Your task to perform on an android device: open device folders in google photos Image 0: 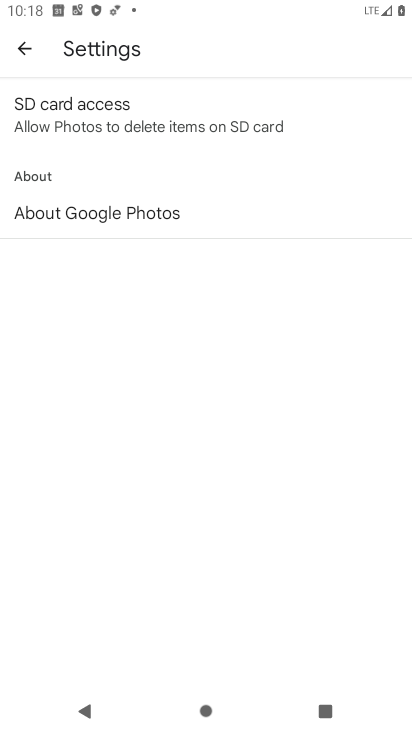
Step 0: press home button
Your task to perform on an android device: open device folders in google photos Image 1: 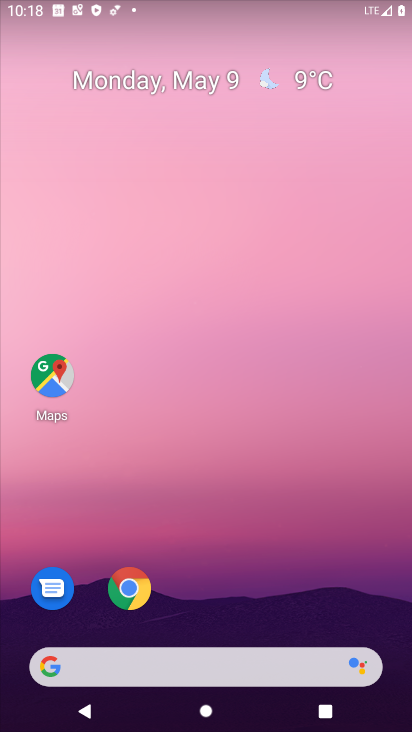
Step 1: drag from (130, 671) to (336, 160)
Your task to perform on an android device: open device folders in google photos Image 2: 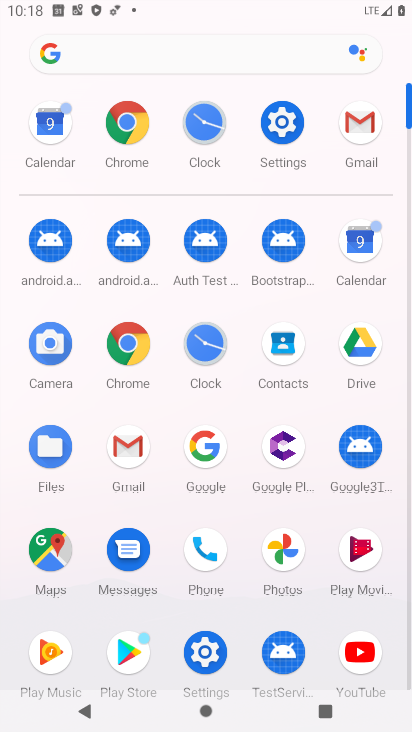
Step 2: click (283, 558)
Your task to perform on an android device: open device folders in google photos Image 3: 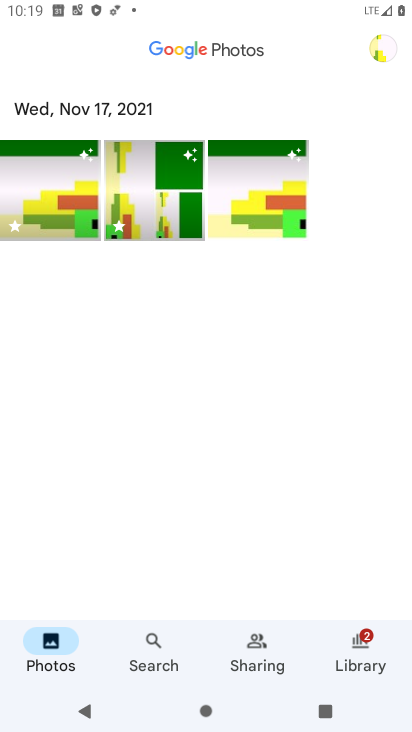
Step 3: click (381, 53)
Your task to perform on an android device: open device folders in google photos Image 4: 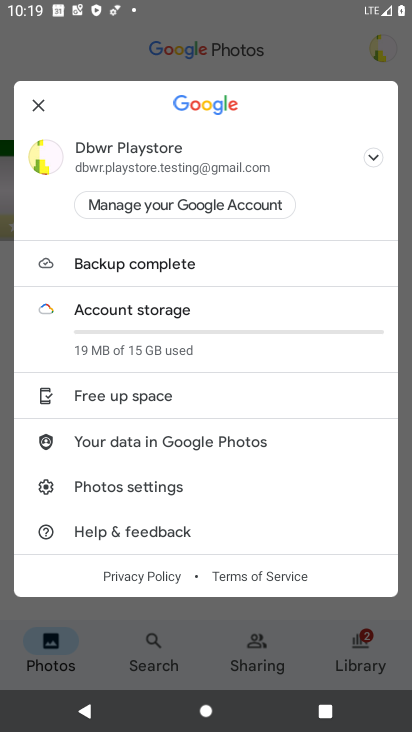
Step 4: click (161, 481)
Your task to perform on an android device: open device folders in google photos Image 5: 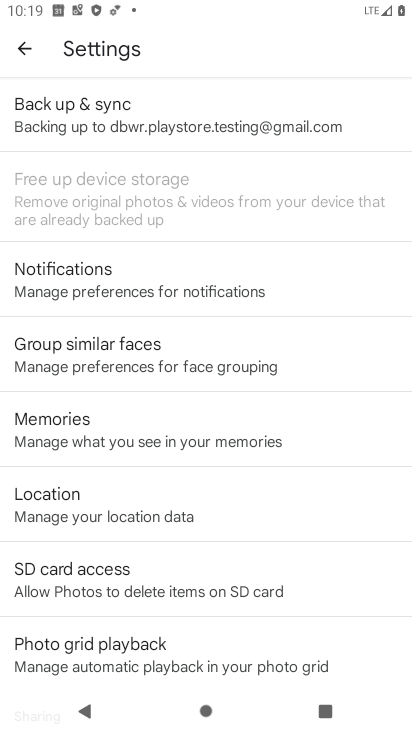
Step 5: task complete